Your task to perform on an android device: Go to Google maps Image 0: 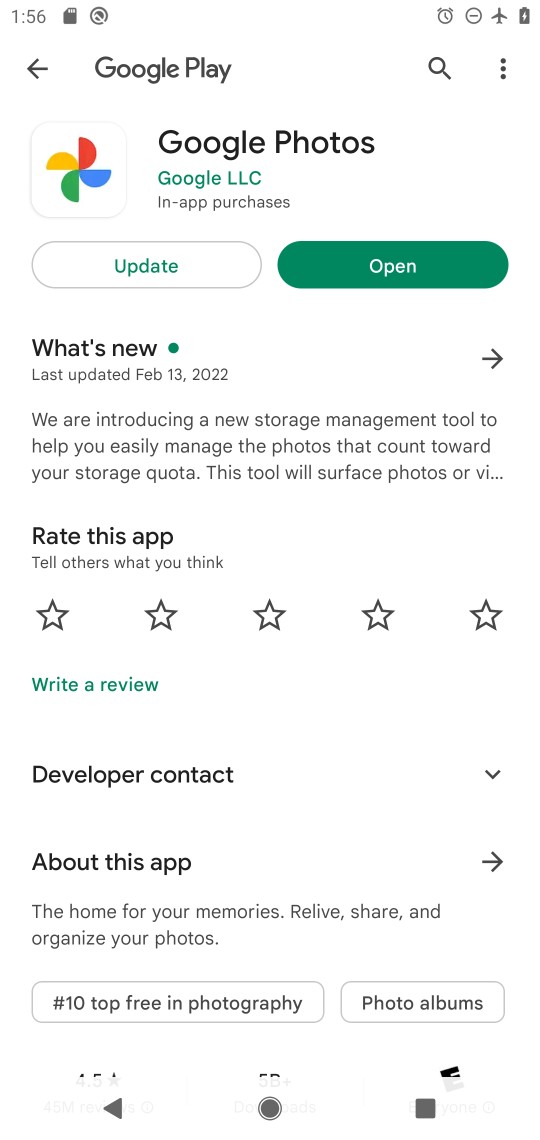
Step 0: press home button
Your task to perform on an android device: Go to Google maps Image 1: 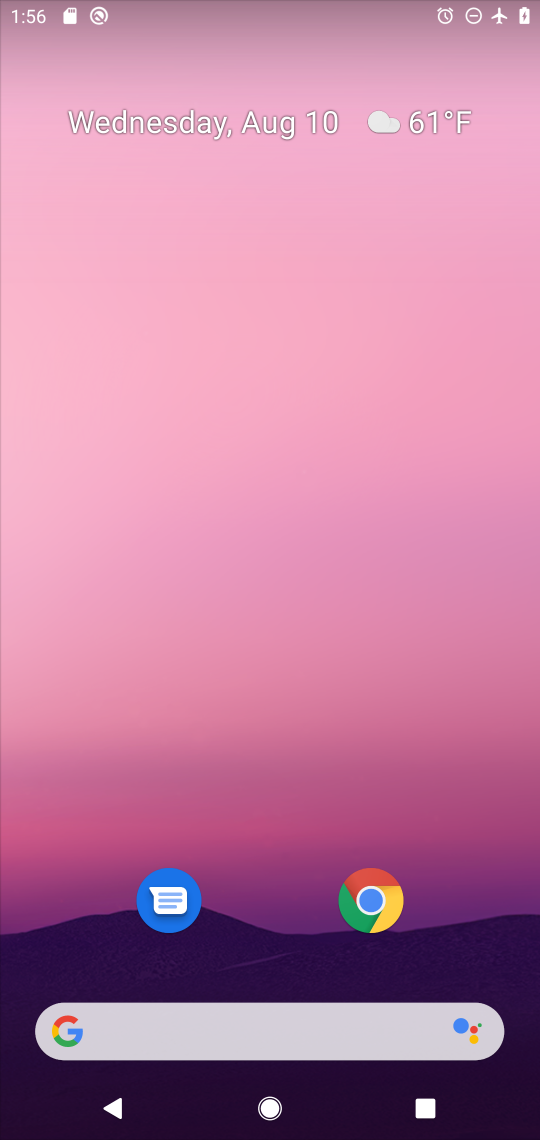
Step 1: drag from (305, 728) to (349, 44)
Your task to perform on an android device: Go to Google maps Image 2: 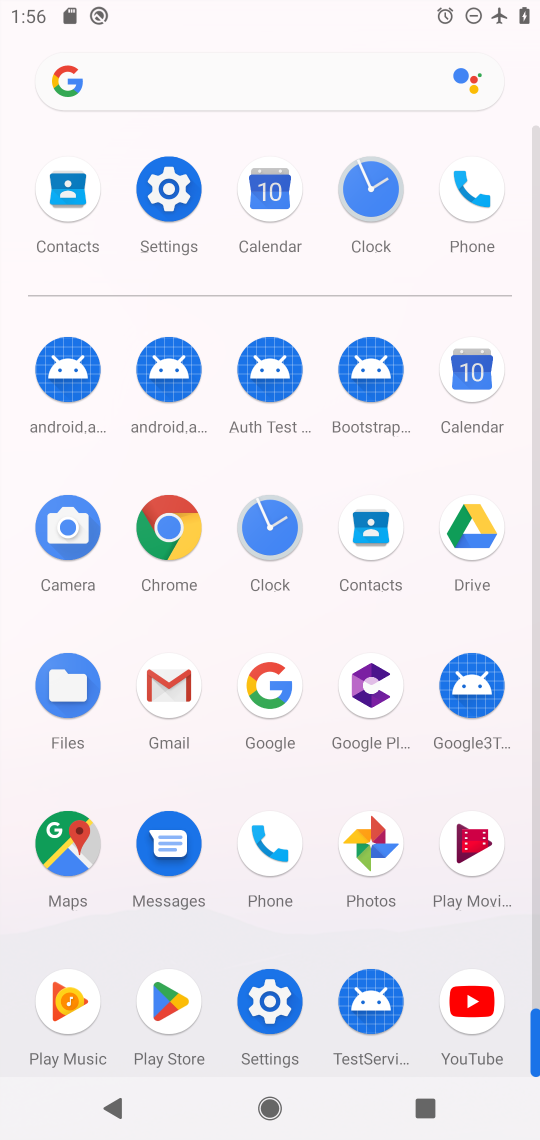
Step 2: click (57, 839)
Your task to perform on an android device: Go to Google maps Image 3: 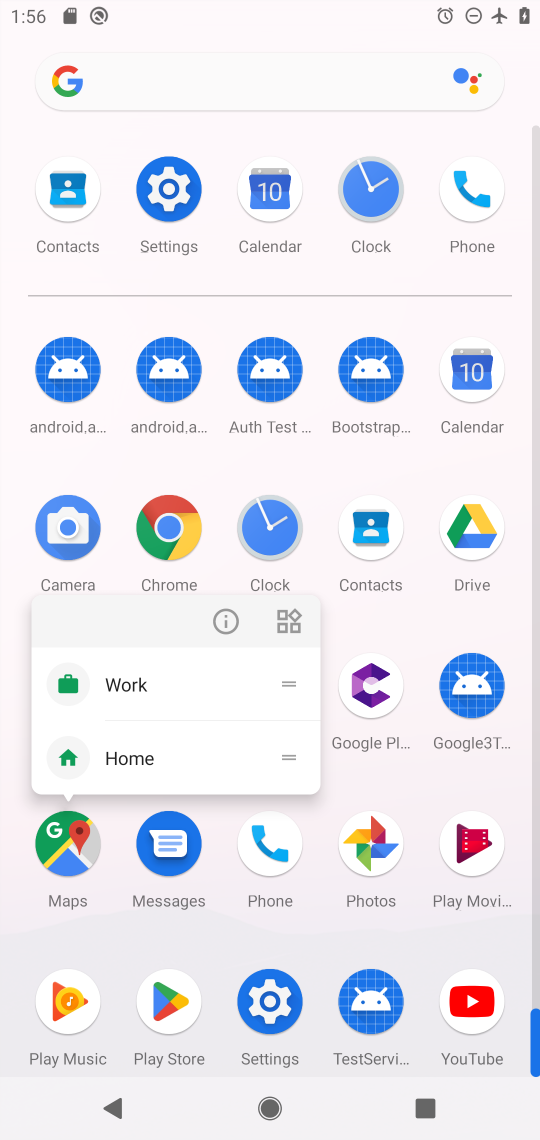
Step 3: click (81, 826)
Your task to perform on an android device: Go to Google maps Image 4: 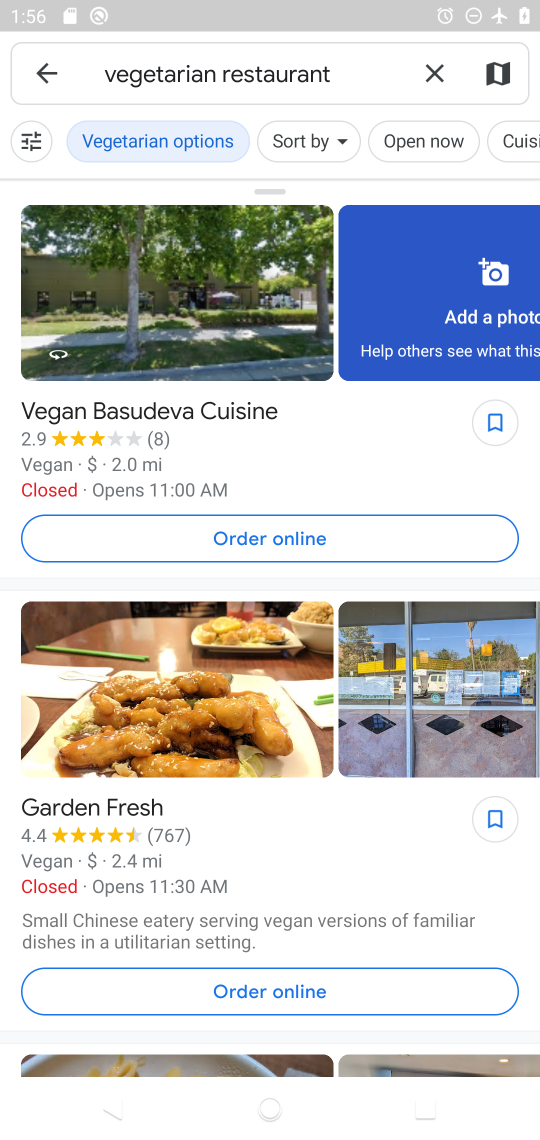
Step 4: click (428, 67)
Your task to perform on an android device: Go to Google maps Image 5: 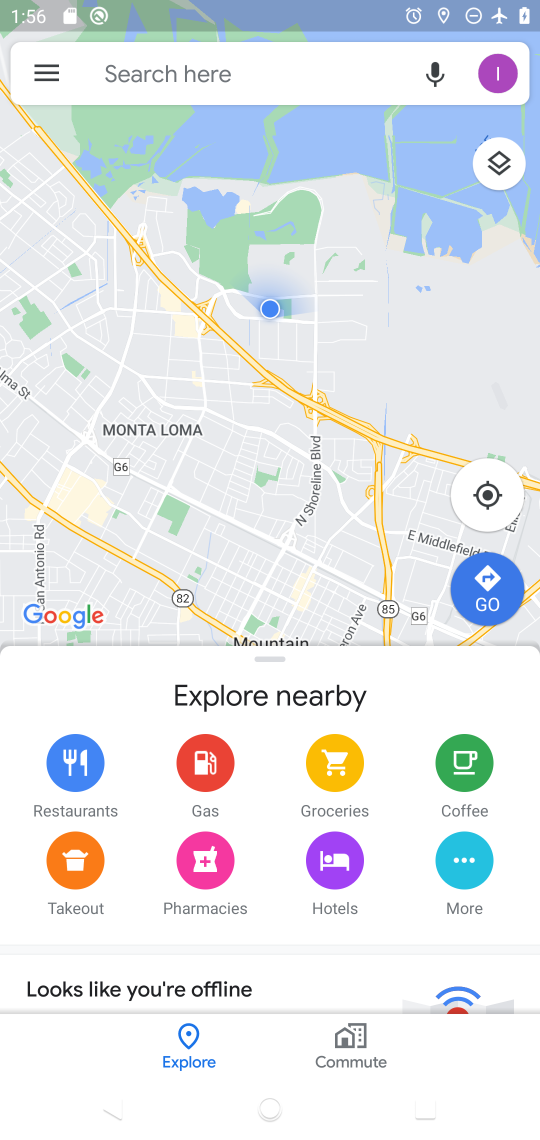
Step 5: task complete